Your task to perform on an android device: Go to Android settings Image 0: 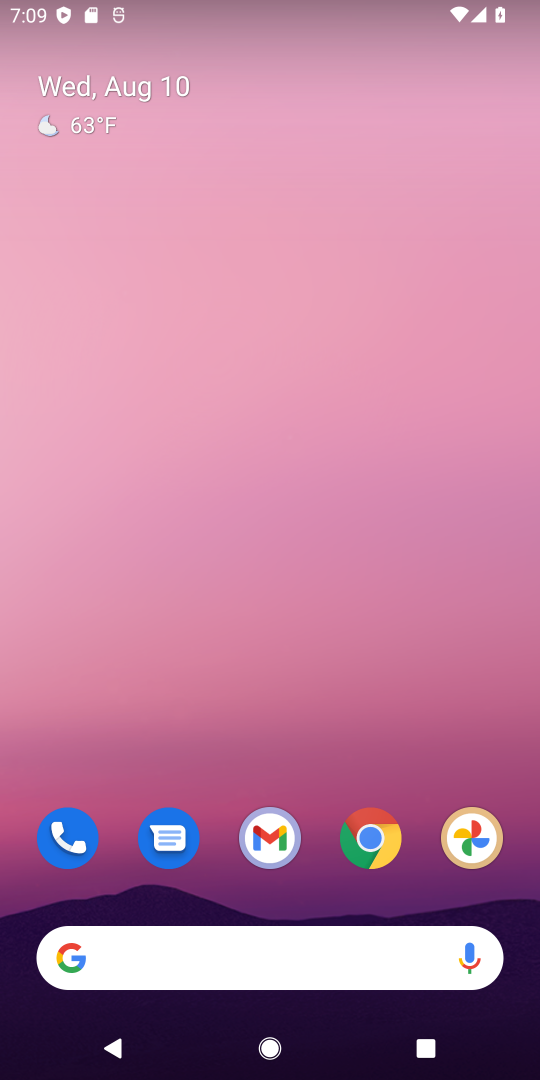
Step 0: drag from (345, 675) to (411, 0)
Your task to perform on an android device: Go to Android settings Image 1: 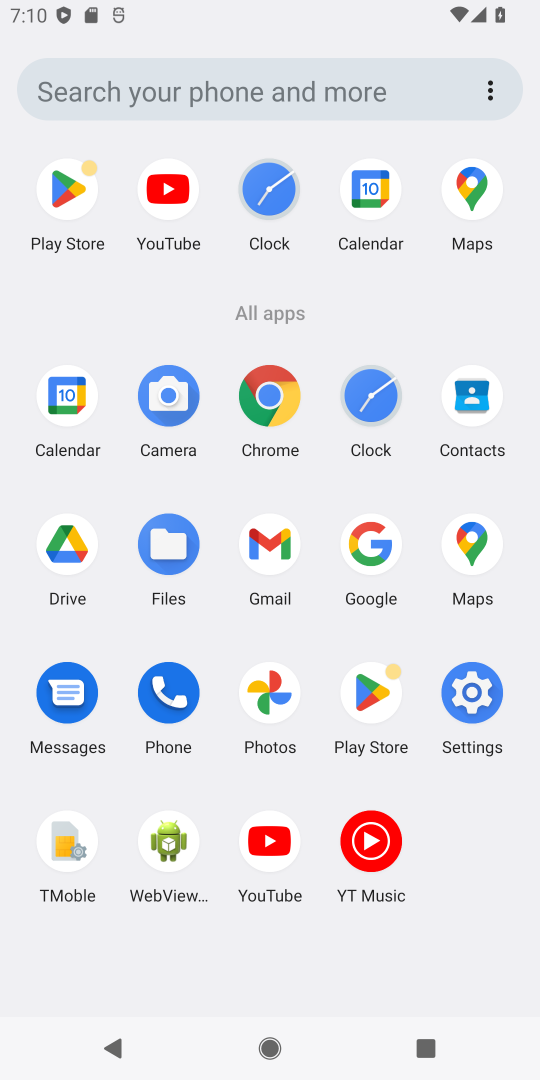
Step 1: click (487, 691)
Your task to perform on an android device: Go to Android settings Image 2: 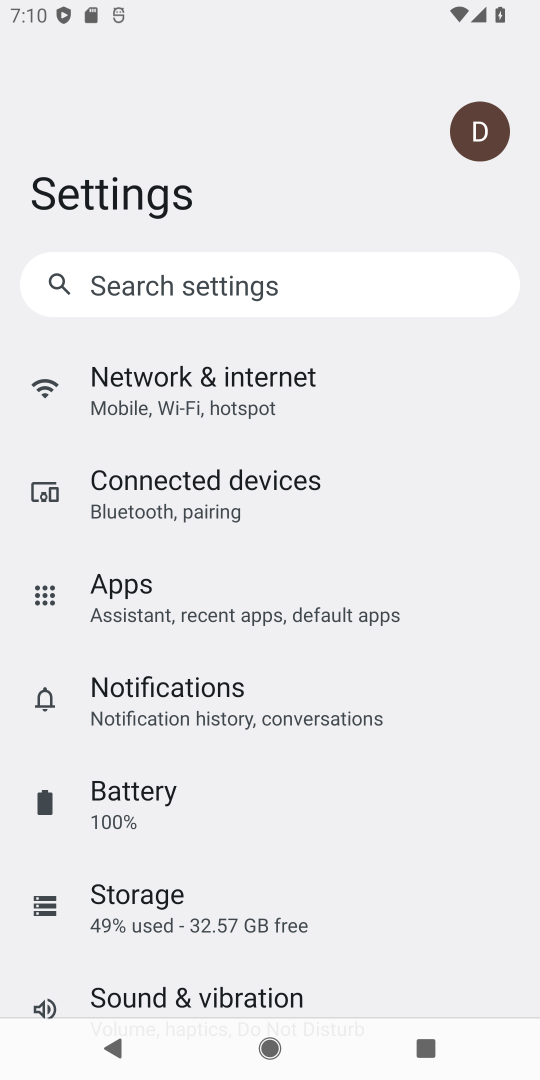
Step 2: drag from (357, 935) to (467, 270)
Your task to perform on an android device: Go to Android settings Image 3: 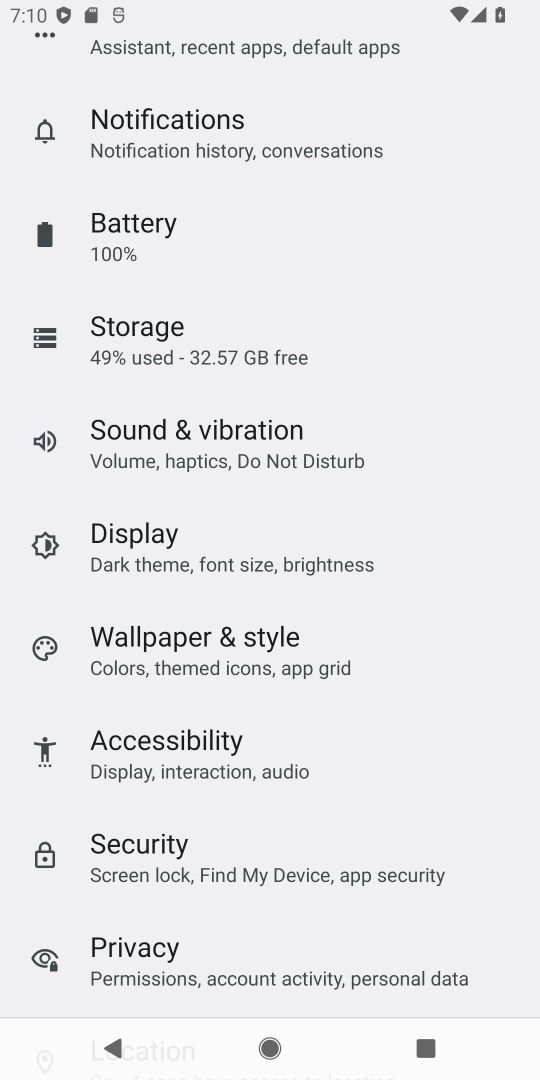
Step 3: drag from (245, 949) to (416, 286)
Your task to perform on an android device: Go to Android settings Image 4: 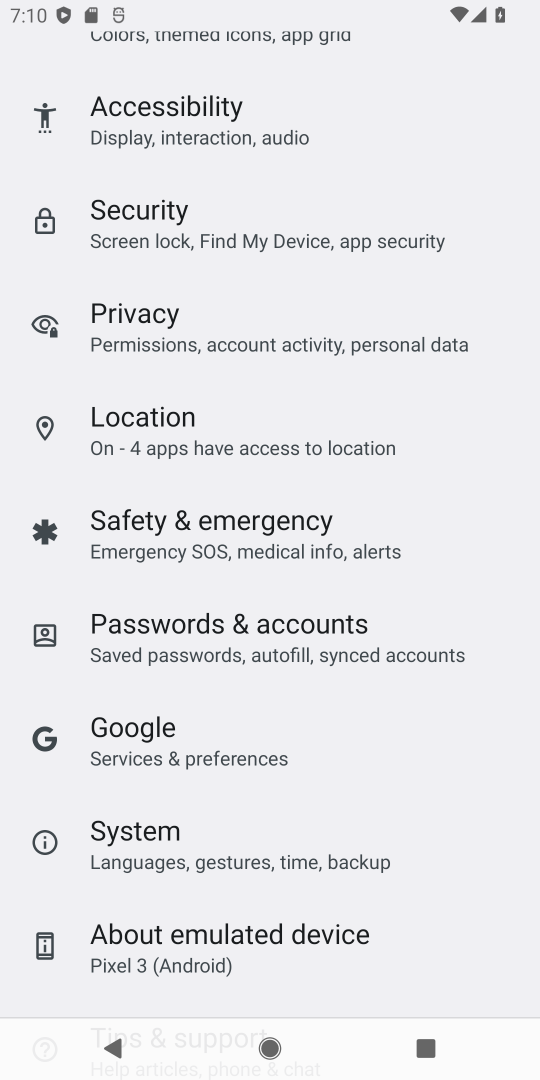
Step 4: click (253, 950)
Your task to perform on an android device: Go to Android settings Image 5: 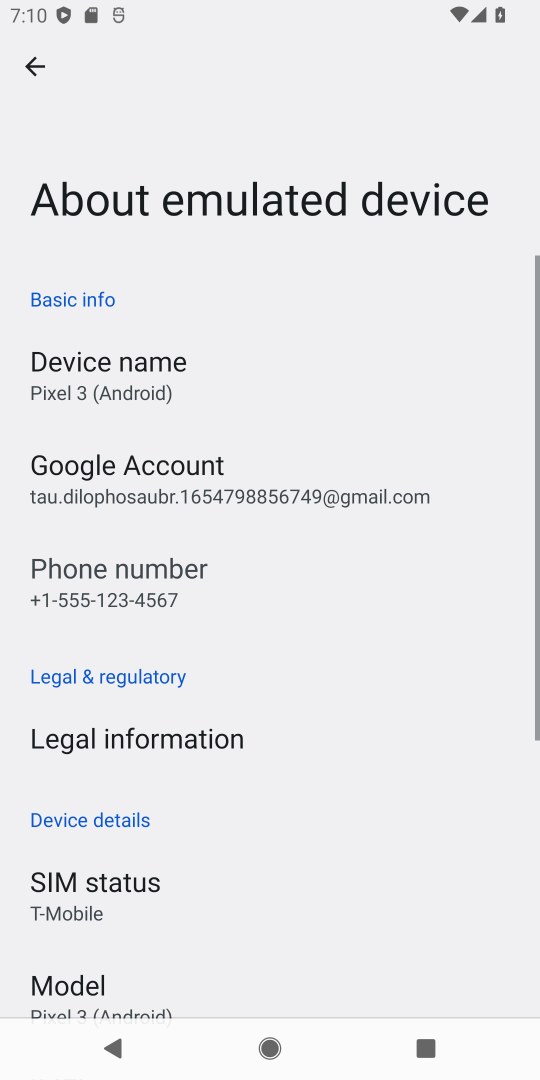
Step 5: drag from (225, 921) to (414, 246)
Your task to perform on an android device: Go to Android settings Image 6: 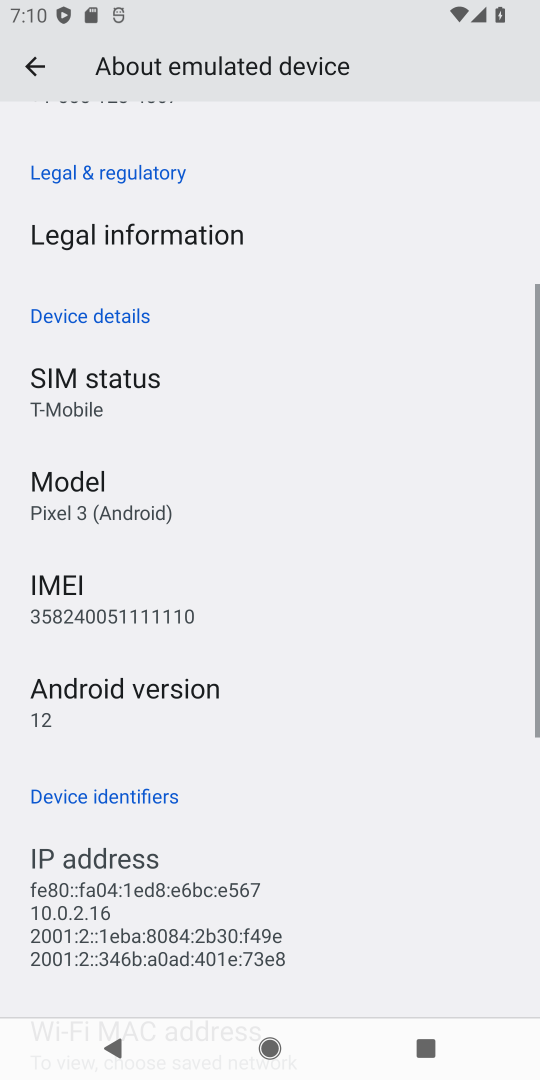
Step 6: click (181, 678)
Your task to perform on an android device: Go to Android settings Image 7: 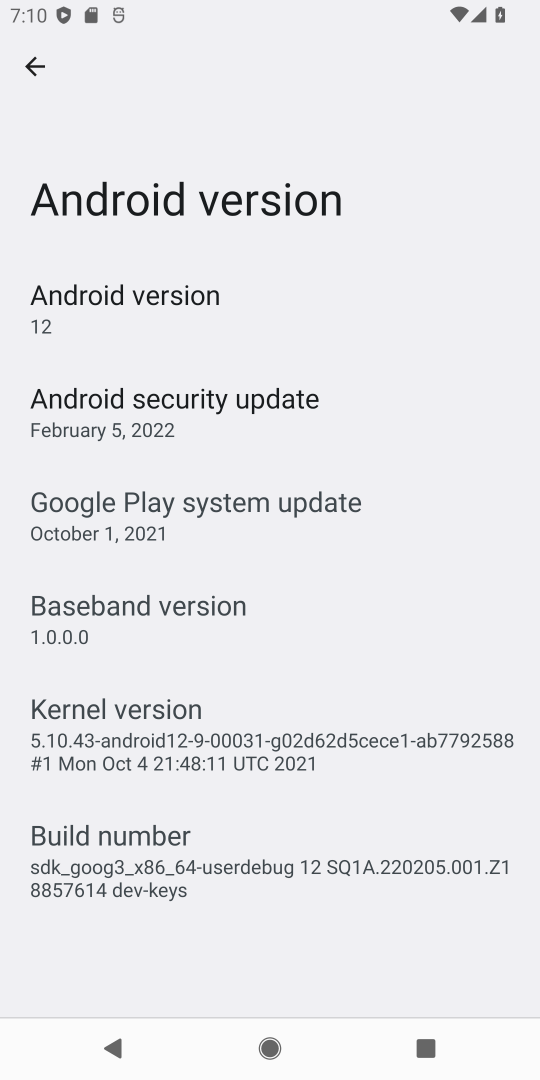
Step 7: task complete